Your task to perform on an android device: Open Yahoo.com Image 0: 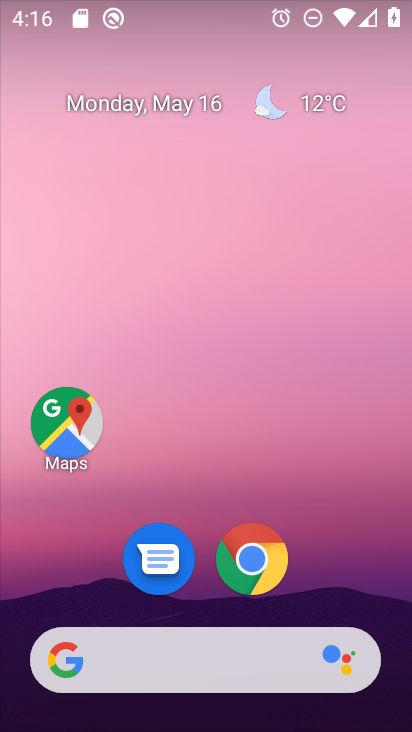
Step 0: click (314, 121)
Your task to perform on an android device: Open Yahoo.com Image 1: 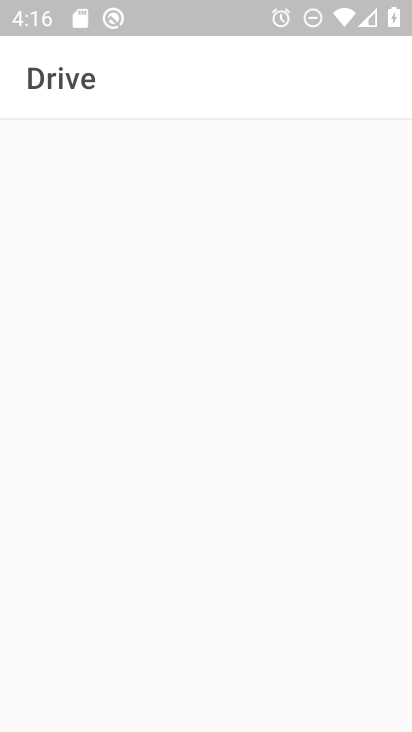
Step 1: press home button
Your task to perform on an android device: Open Yahoo.com Image 2: 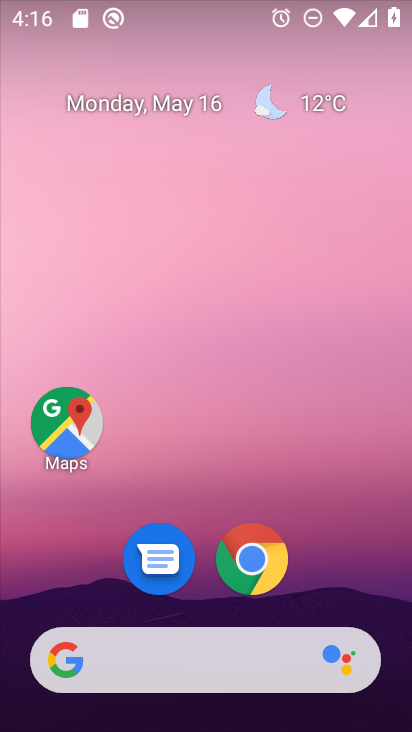
Step 2: drag from (364, 593) to (323, 10)
Your task to perform on an android device: Open Yahoo.com Image 3: 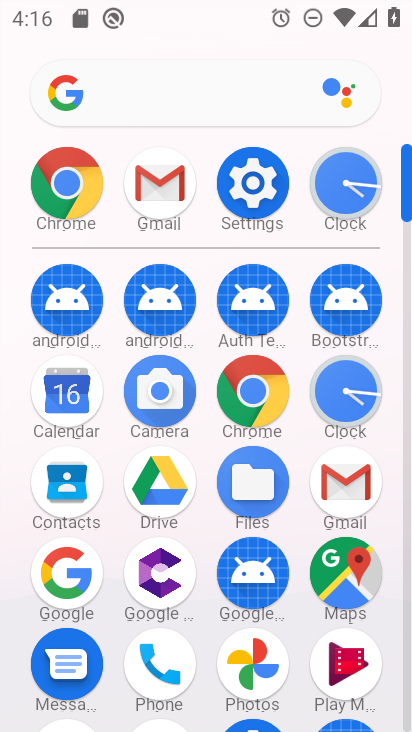
Step 3: click (61, 179)
Your task to perform on an android device: Open Yahoo.com Image 4: 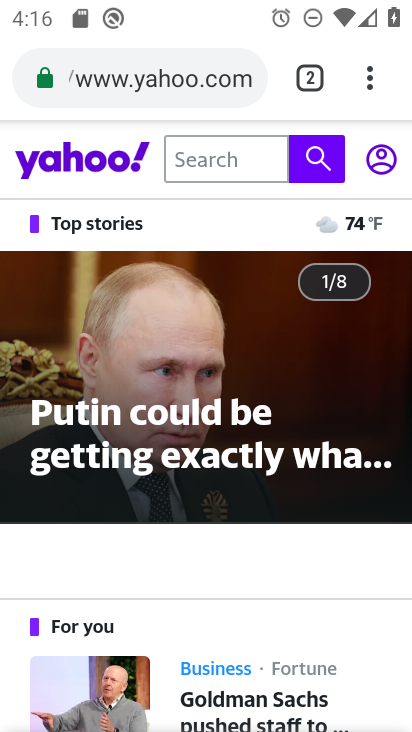
Step 4: task complete